Your task to perform on an android device: turn on the 12-hour format for clock Image 0: 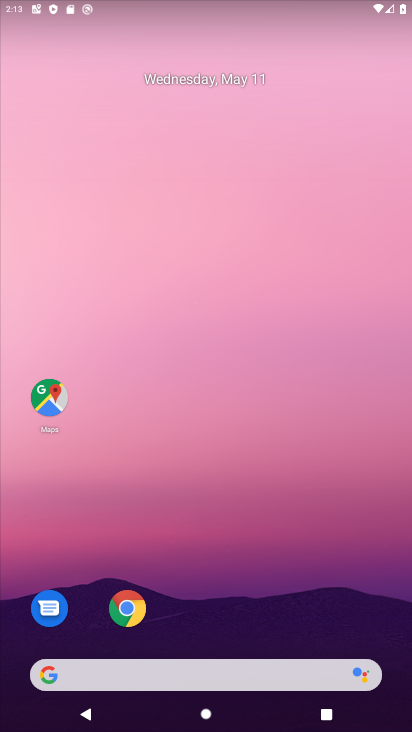
Step 0: drag from (177, 489) to (174, 151)
Your task to perform on an android device: turn on the 12-hour format for clock Image 1: 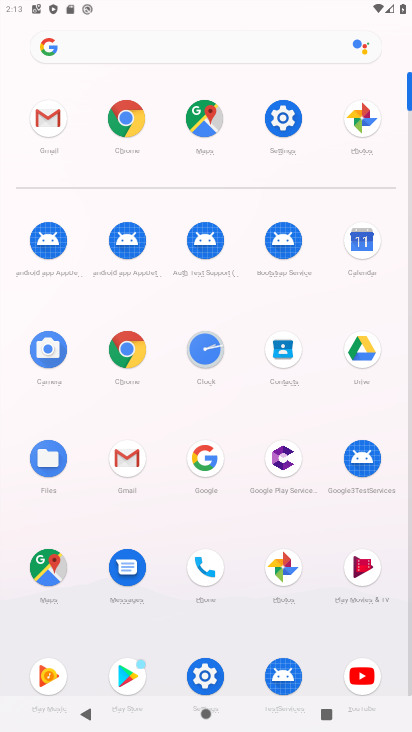
Step 1: click (206, 353)
Your task to perform on an android device: turn on the 12-hour format for clock Image 2: 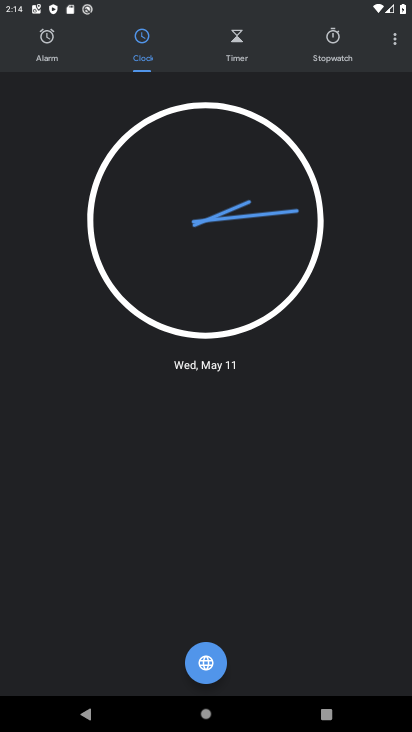
Step 2: click (398, 40)
Your task to perform on an android device: turn on the 12-hour format for clock Image 3: 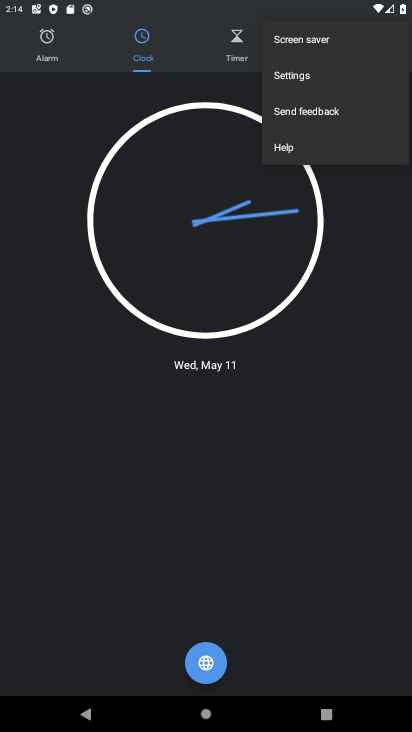
Step 3: click (287, 79)
Your task to perform on an android device: turn on the 12-hour format for clock Image 4: 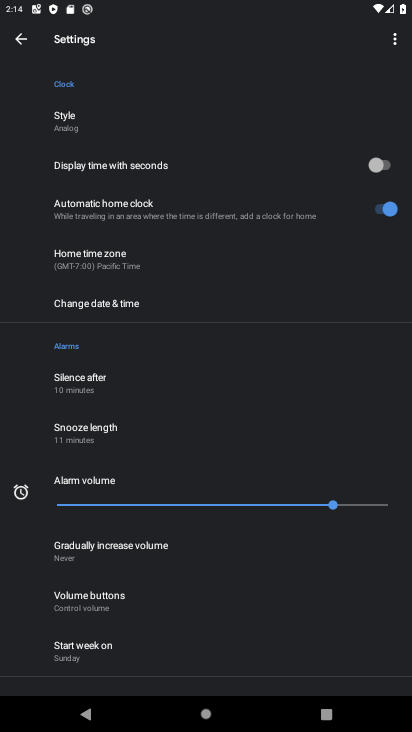
Step 4: click (147, 296)
Your task to perform on an android device: turn on the 12-hour format for clock Image 5: 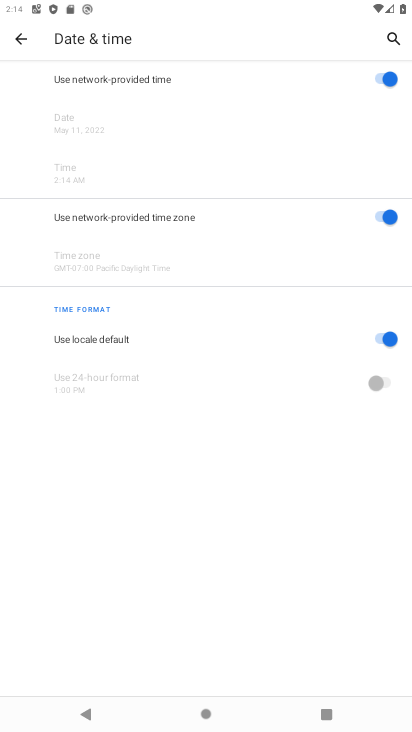
Step 5: task complete